Your task to perform on an android device: turn off picture-in-picture Image 0: 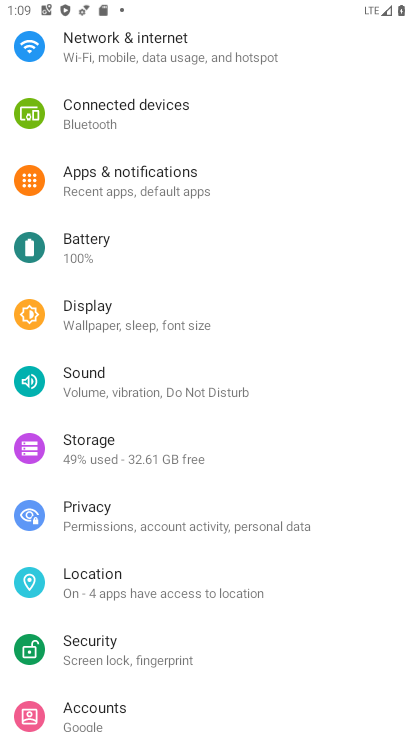
Step 0: press home button
Your task to perform on an android device: turn off picture-in-picture Image 1: 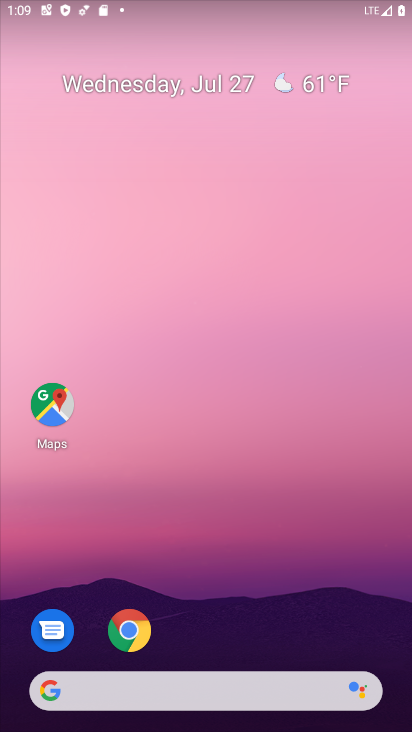
Step 1: click (131, 637)
Your task to perform on an android device: turn off picture-in-picture Image 2: 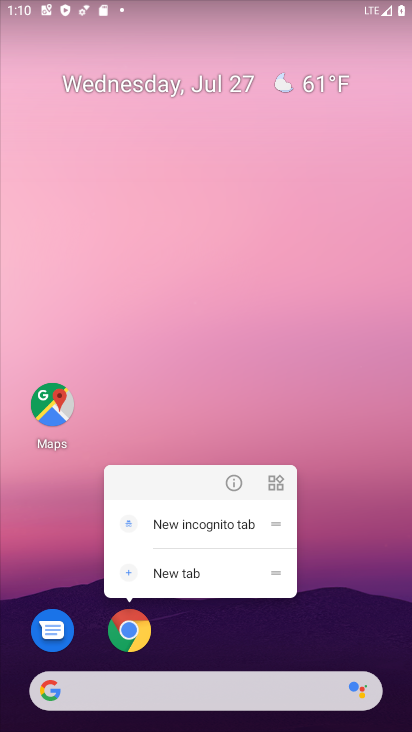
Step 2: click (239, 478)
Your task to perform on an android device: turn off picture-in-picture Image 3: 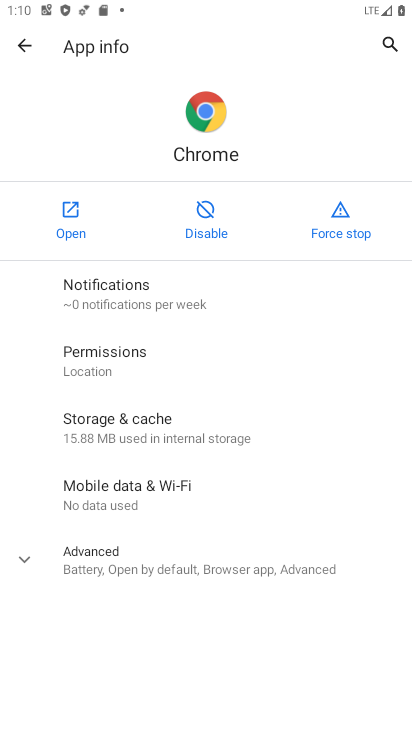
Step 3: click (126, 566)
Your task to perform on an android device: turn off picture-in-picture Image 4: 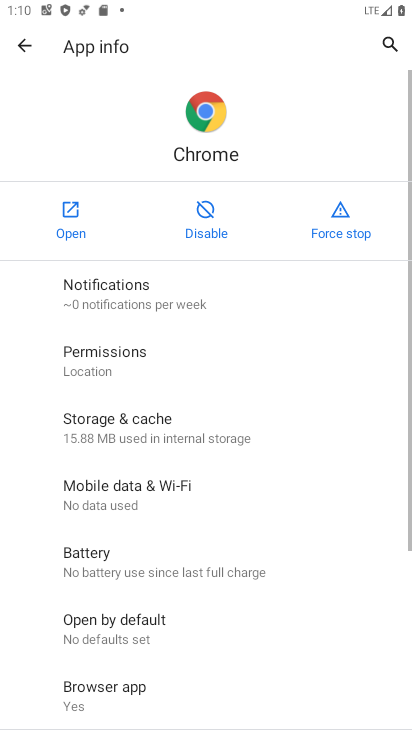
Step 4: drag from (161, 685) to (181, 287)
Your task to perform on an android device: turn off picture-in-picture Image 5: 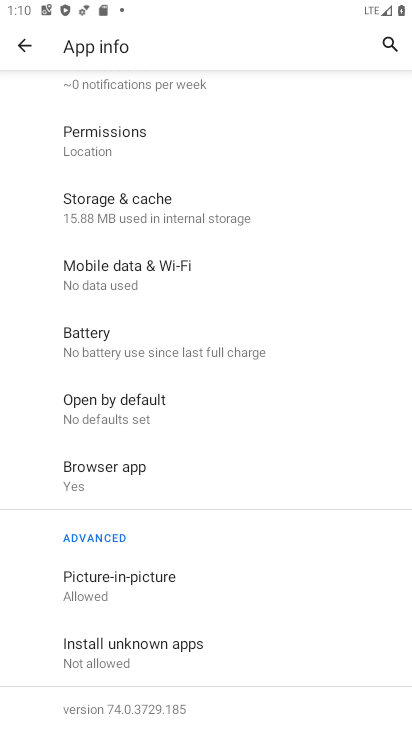
Step 5: click (114, 587)
Your task to perform on an android device: turn off picture-in-picture Image 6: 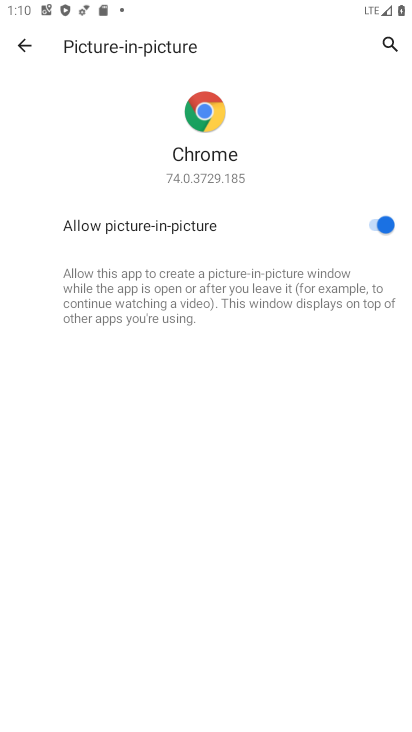
Step 6: click (379, 225)
Your task to perform on an android device: turn off picture-in-picture Image 7: 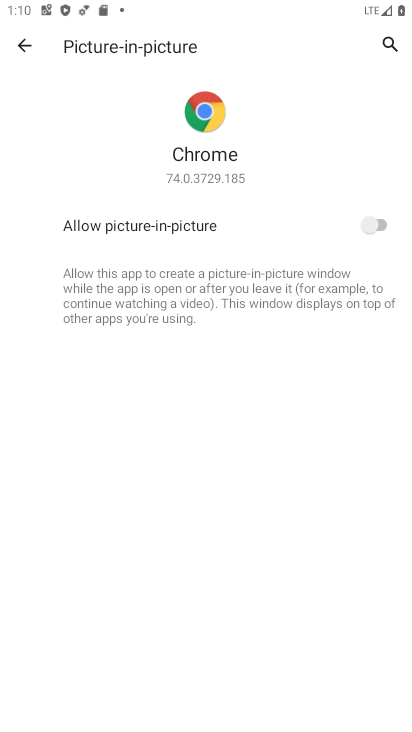
Step 7: task complete